Your task to perform on an android device: Go to Amazon Image 0: 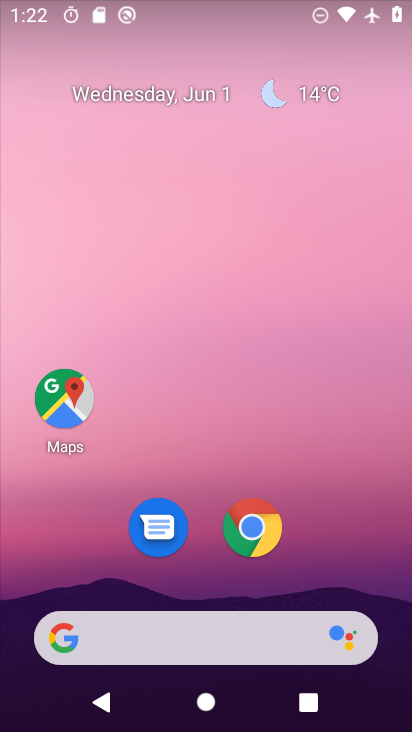
Step 0: drag from (249, 651) to (334, 138)
Your task to perform on an android device: Go to Amazon Image 1: 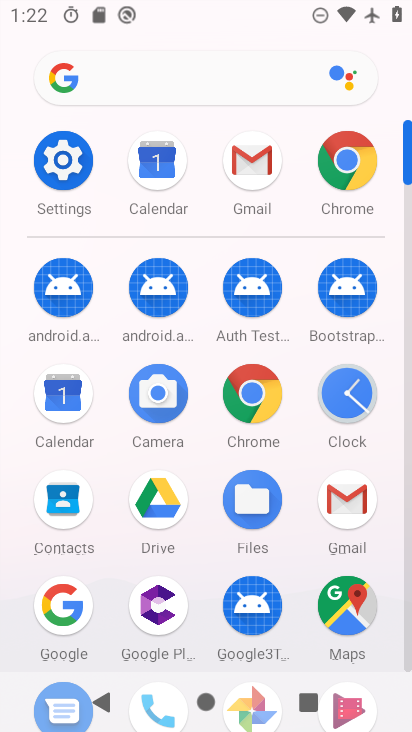
Step 1: click (345, 185)
Your task to perform on an android device: Go to Amazon Image 2: 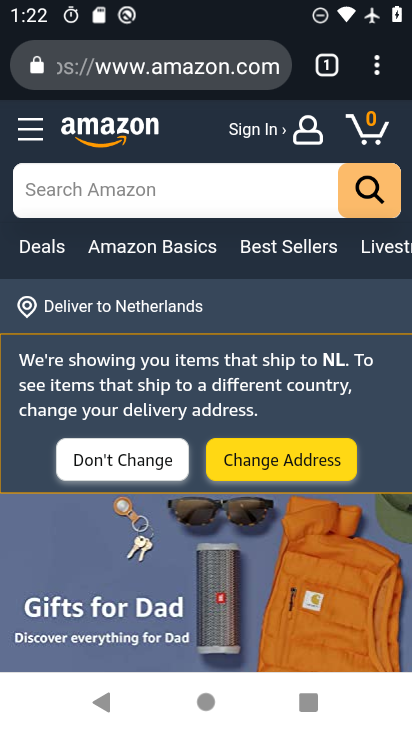
Step 2: task complete